Your task to perform on an android device: search for starred emails in the gmail app Image 0: 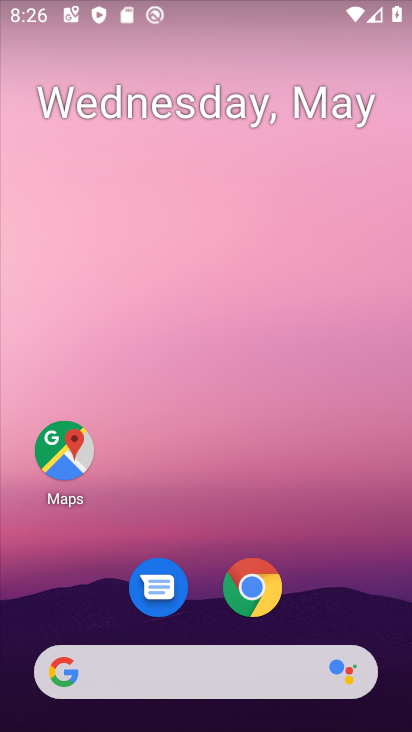
Step 0: drag from (400, 597) to (329, 166)
Your task to perform on an android device: search for starred emails in the gmail app Image 1: 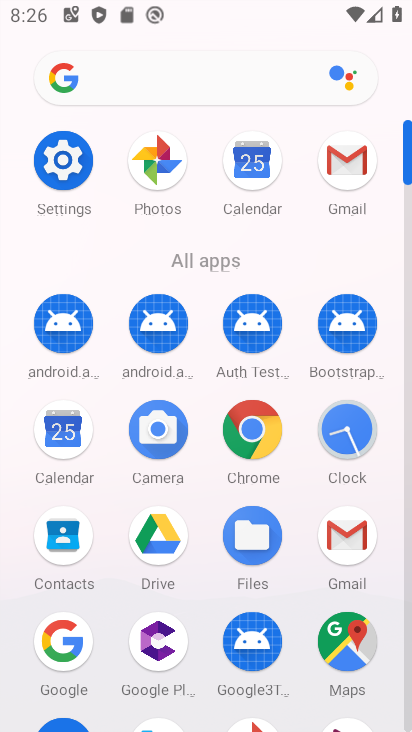
Step 1: click (344, 537)
Your task to perform on an android device: search for starred emails in the gmail app Image 2: 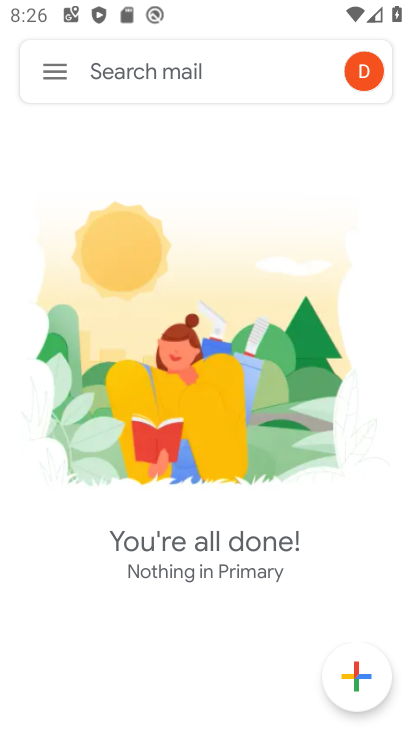
Step 2: click (53, 68)
Your task to perform on an android device: search for starred emails in the gmail app Image 3: 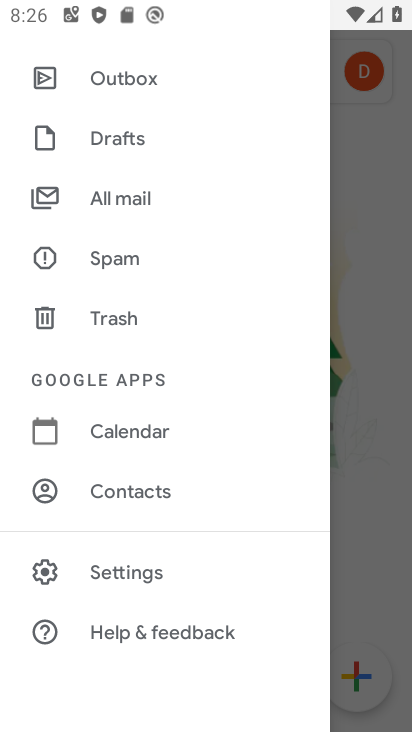
Step 3: drag from (209, 233) to (181, 587)
Your task to perform on an android device: search for starred emails in the gmail app Image 4: 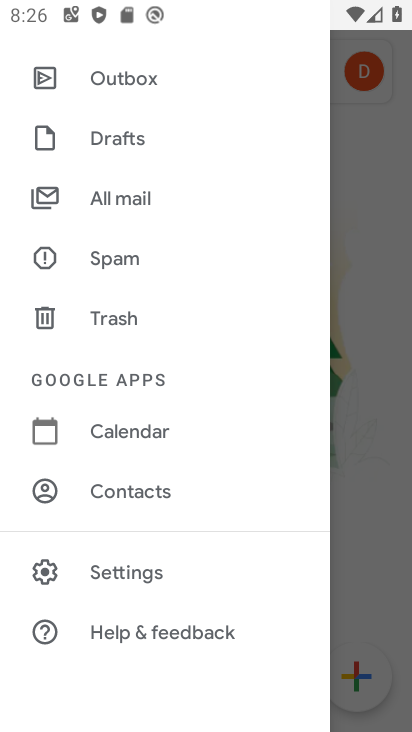
Step 4: drag from (200, 89) to (149, 519)
Your task to perform on an android device: search for starred emails in the gmail app Image 5: 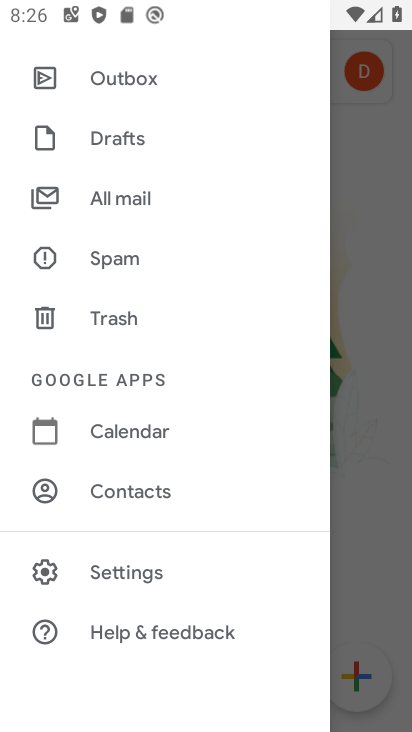
Step 5: drag from (147, 158) to (160, 390)
Your task to perform on an android device: search for starred emails in the gmail app Image 6: 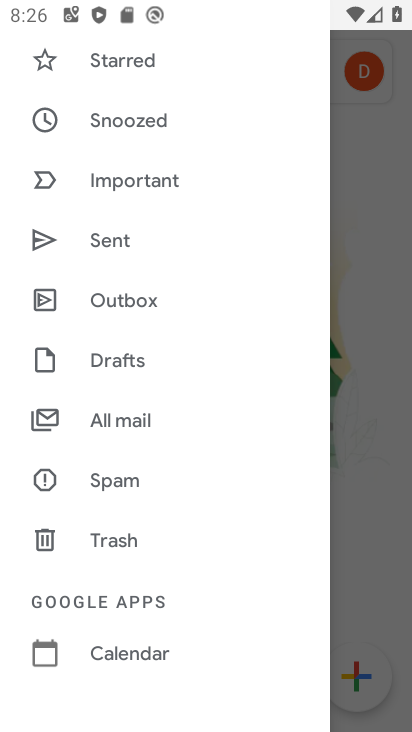
Step 6: click (119, 57)
Your task to perform on an android device: search for starred emails in the gmail app Image 7: 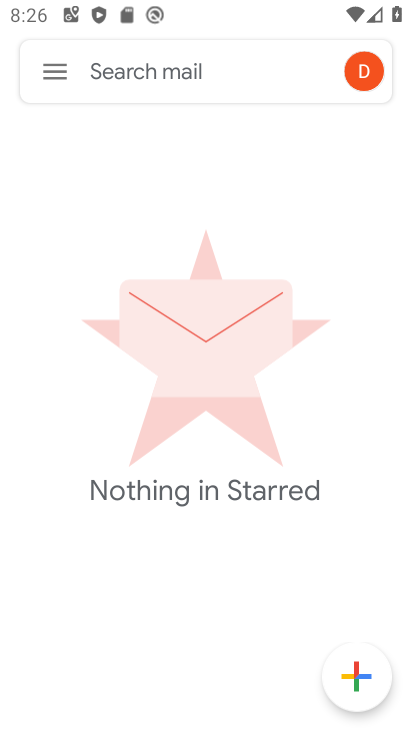
Step 7: task complete